Your task to perform on an android device: Open wifi settings Image 0: 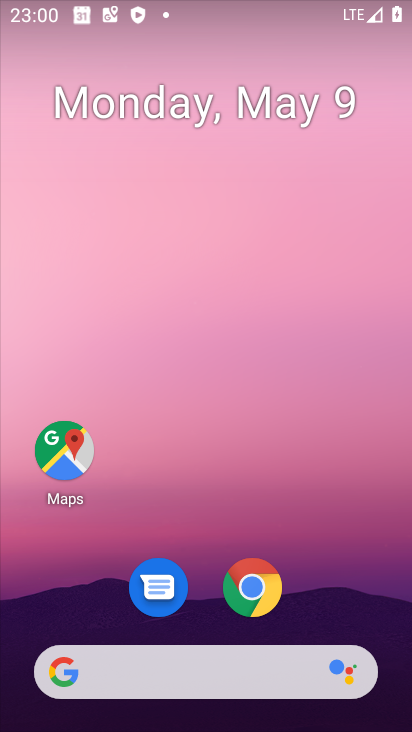
Step 0: drag from (172, 11) to (181, 600)
Your task to perform on an android device: Open wifi settings Image 1: 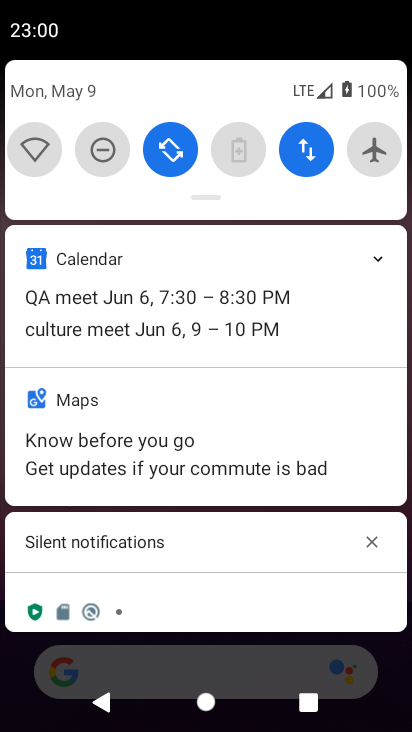
Step 1: click (47, 172)
Your task to perform on an android device: Open wifi settings Image 2: 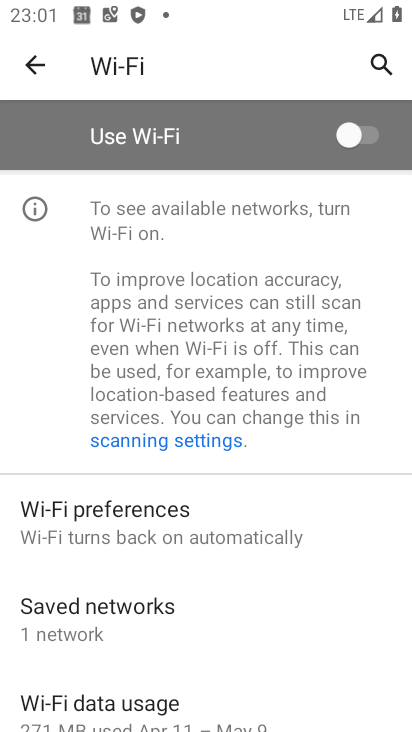
Step 2: task complete